Your task to perform on an android device: Go to network settings Image 0: 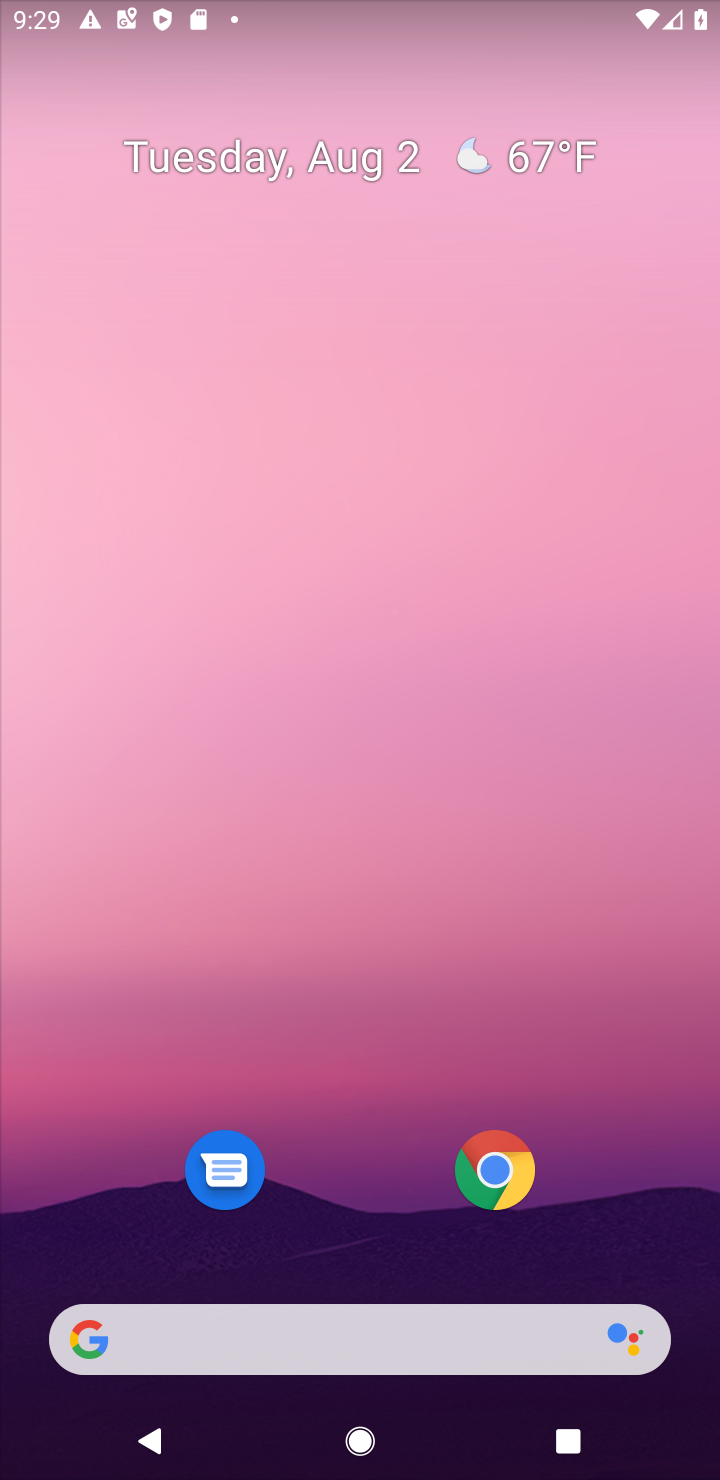
Step 0: drag from (327, 1247) to (352, 207)
Your task to perform on an android device: Go to network settings Image 1: 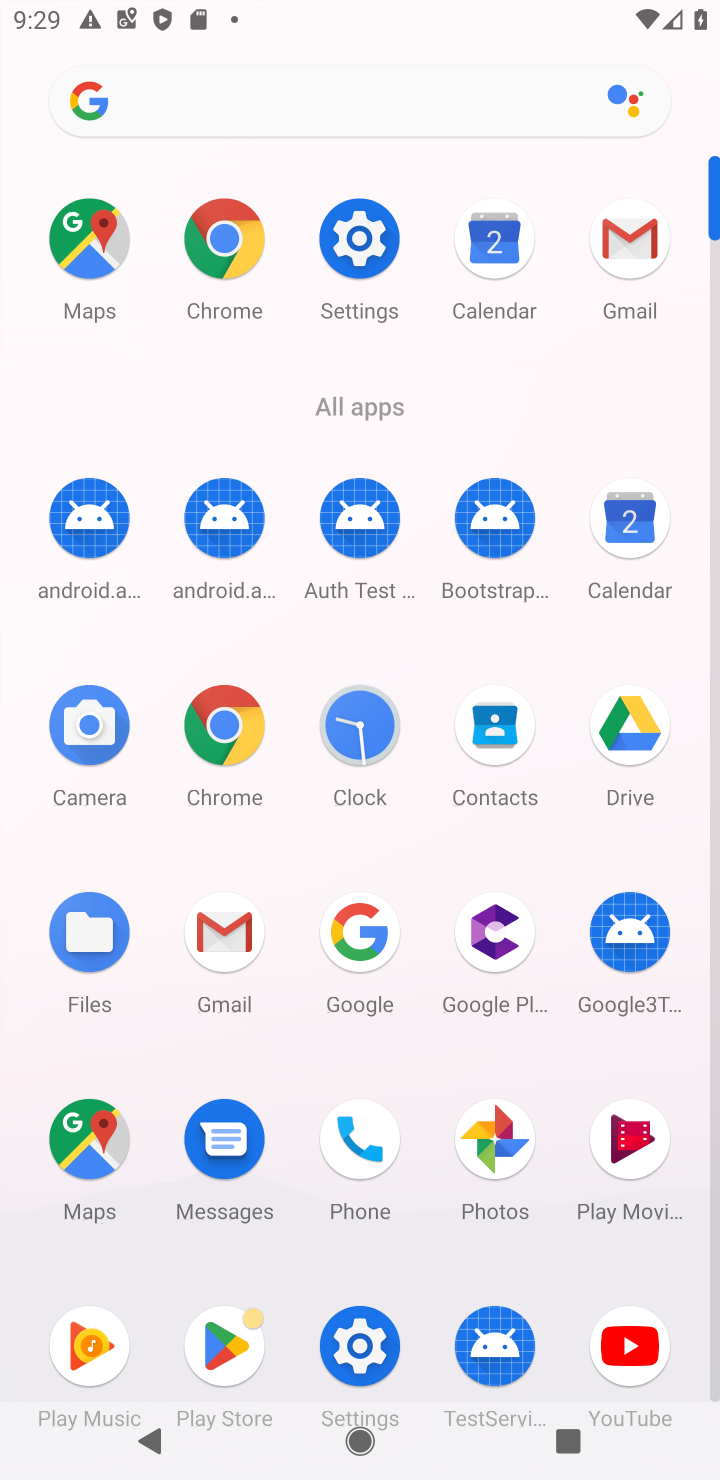
Step 1: click (361, 244)
Your task to perform on an android device: Go to network settings Image 2: 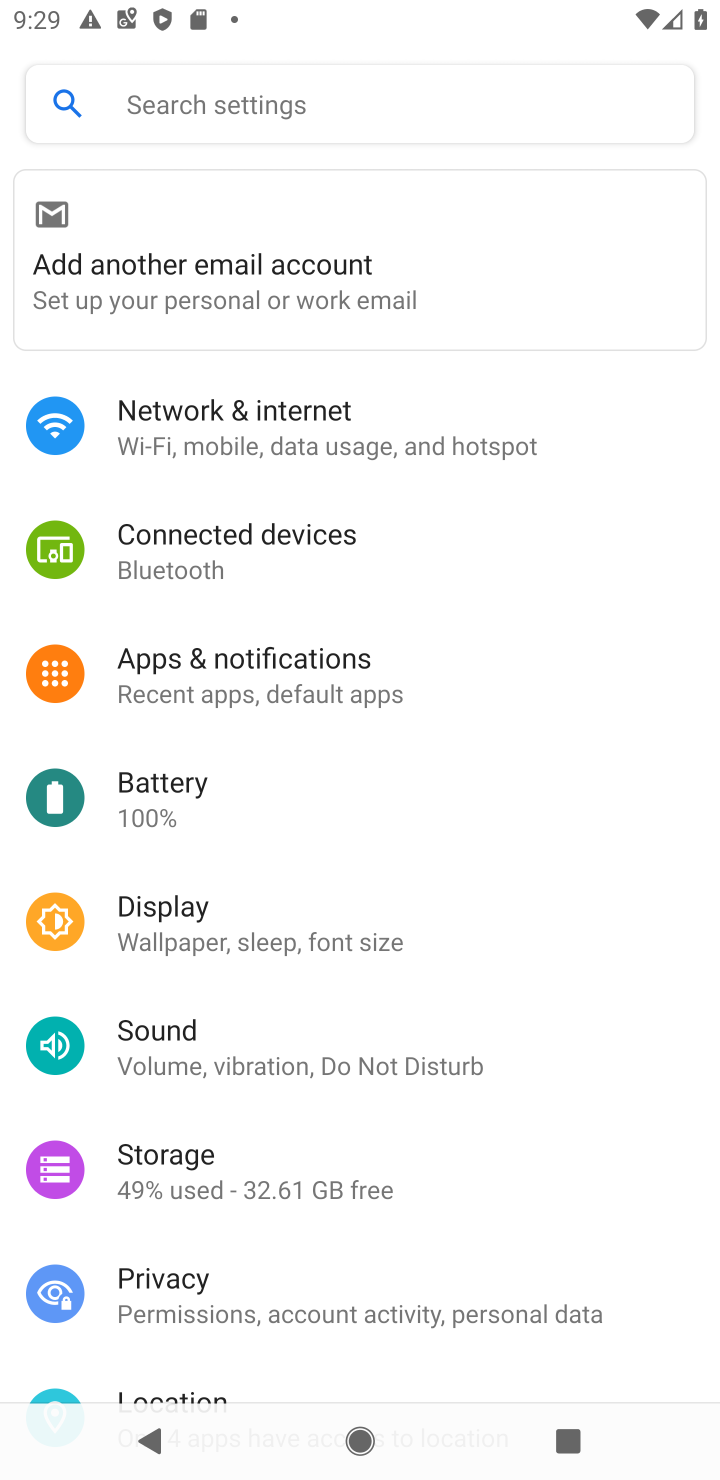
Step 2: click (255, 412)
Your task to perform on an android device: Go to network settings Image 3: 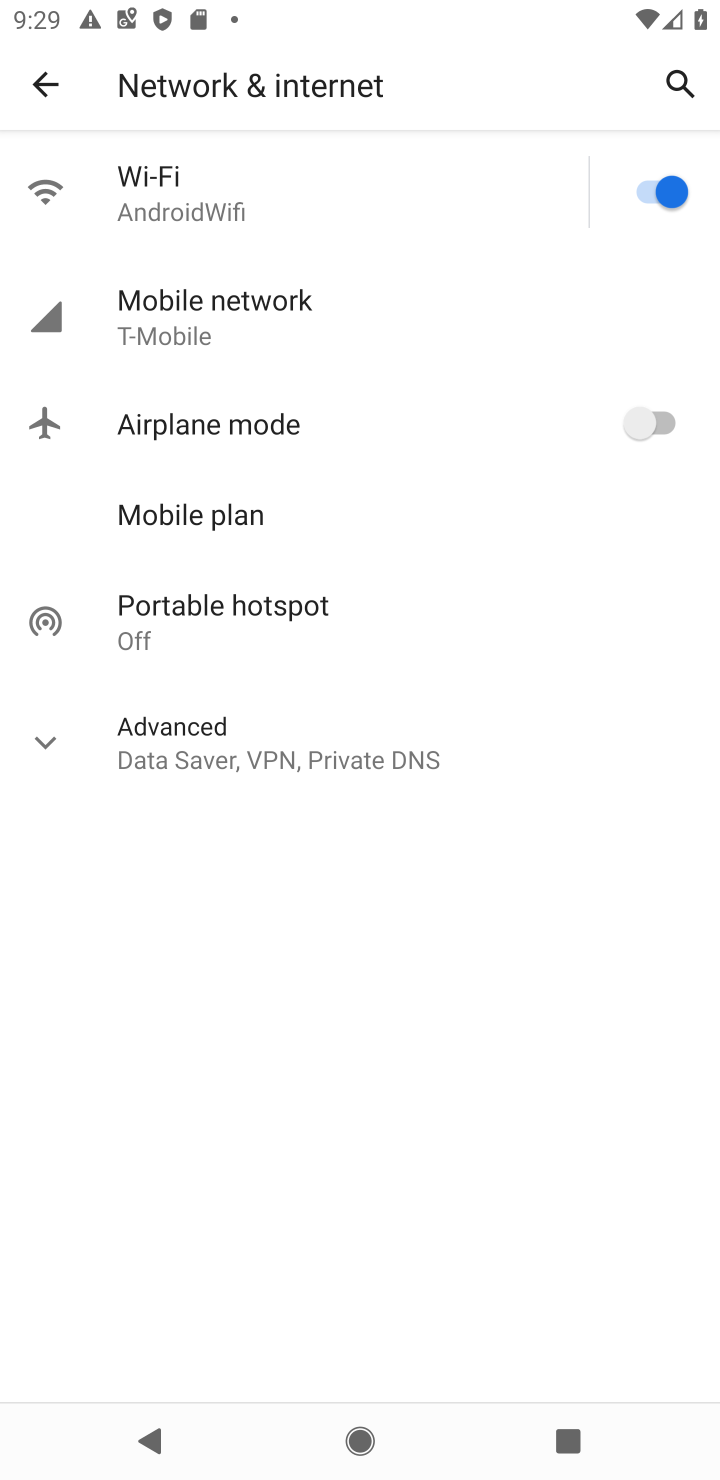
Step 3: task complete